Your task to perform on an android device: open app "Microsoft Excel" (install if not already installed), go to login, and select forgot password Image 0: 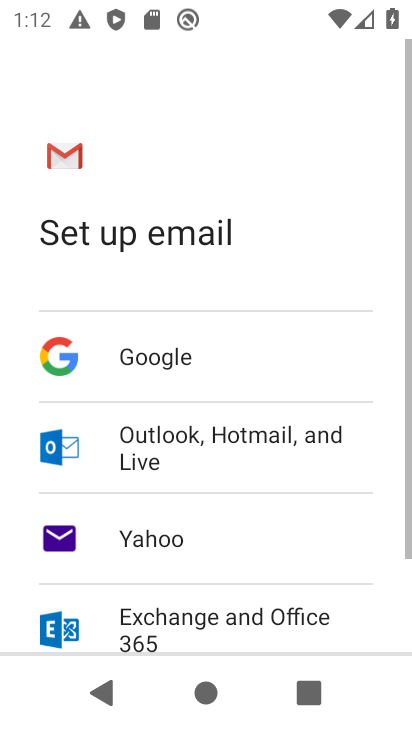
Step 0: press home button
Your task to perform on an android device: open app "Microsoft Excel" (install if not already installed), go to login, and select forgot password Image 1: 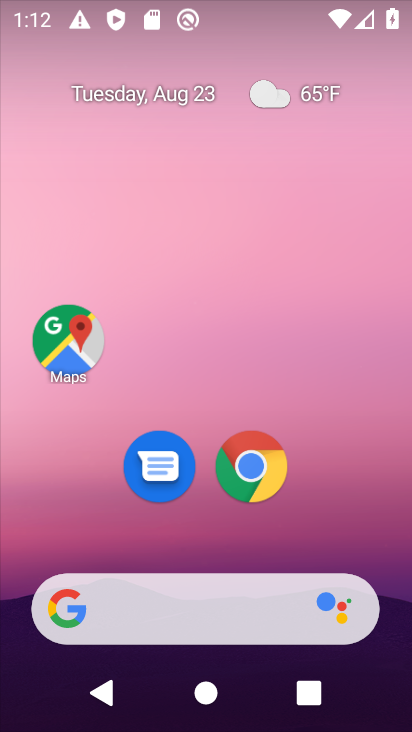
Step 1: drag from (208, 596) to (228, 161)
Your task to perform on an android device: open app "Microsoft Excel" (install if not already installed), go to login, and select forgot password Image 2: 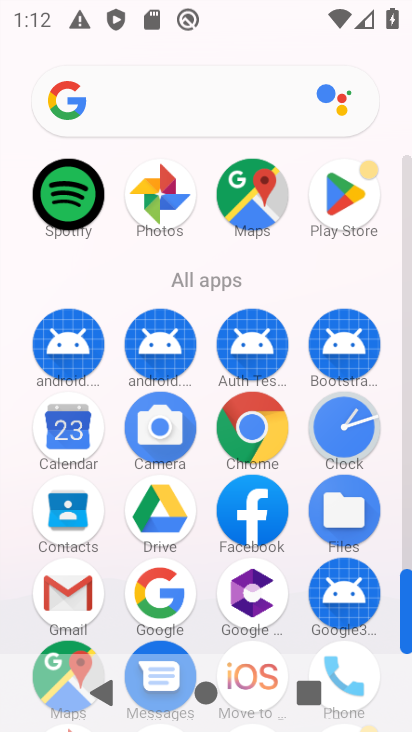
Step 2: click (338, 180)
Your task to perform on an android device: open app "Microsoft Excel" (install if not already installed), go to login, and select forgot password Image 3: 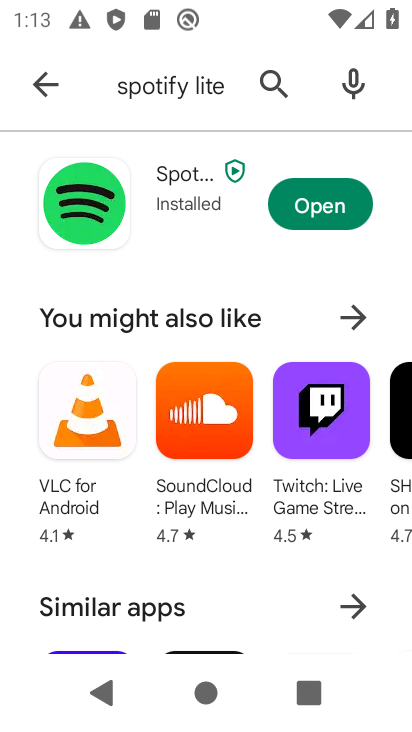
Step 3: click (60, 89)
Your task to perform on an android device: open app "Microsoft Excel" (install if not already installed), go to login, and select forgot password Image 4: 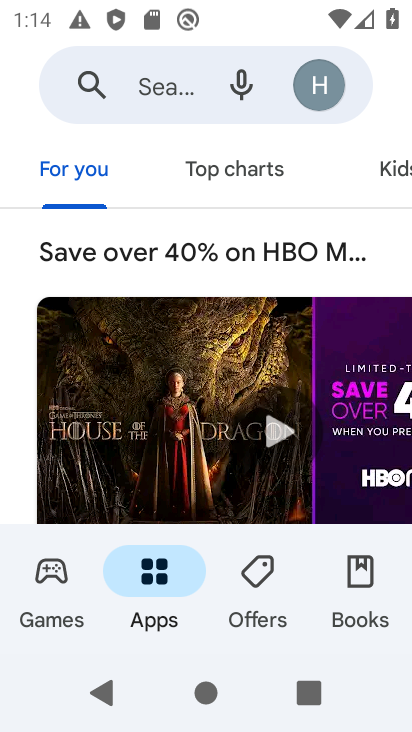
Step 4: click (150, 81)
Your task to perform on an android device: open app "Microsoft Excel" (install if not already installed), go to login, and select forgot password Image 5: 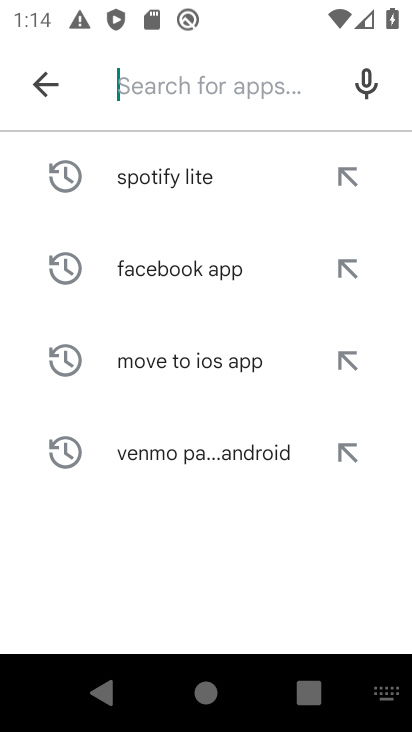
Step 5: type "Microsoft Excel "
Your task to perform on an android device: open app "Microsoft Excel" (install if not already installed), go to login, and select forgot password Image 6: 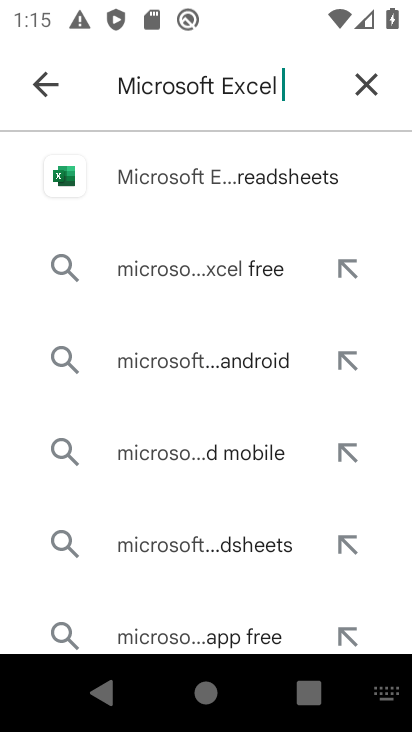
Step 6: click (154, 187)
Your task to perform on an android device: open app "Microsoft Excel" (install if not already installed), go to login, and select forgot password Image 7: 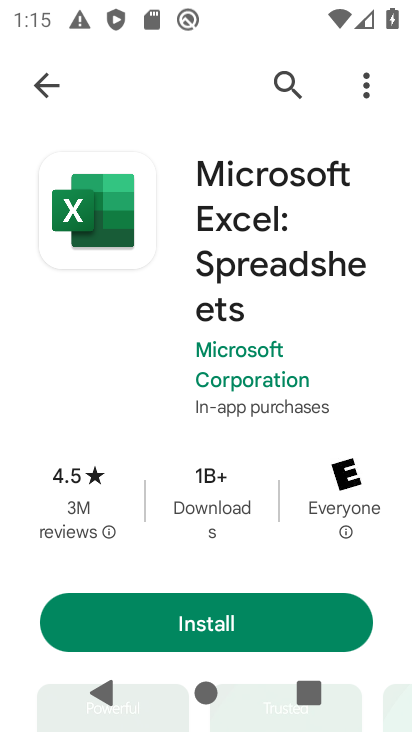
Step 7: click (245, 616)
Your task to perform on an android device: open app "Microsoft Excel" (install if not already installed), go to login, and select forgot password Image 8: 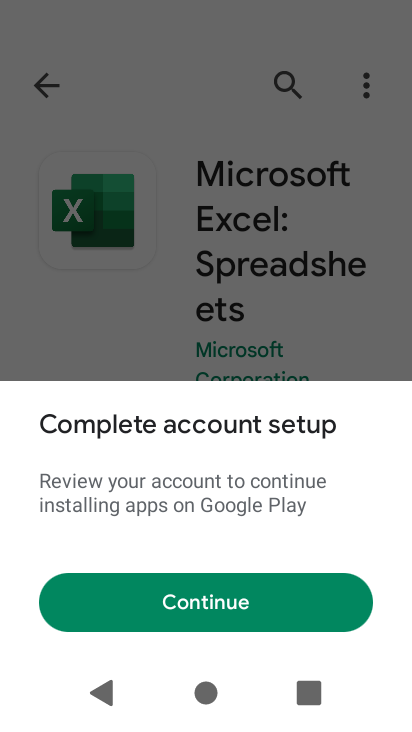
Step 8: click (227, 605)
Your task to perform on an android device: open app "Microsoft Excel" (install if not already installed), go to login, and select forgot password Image 9: 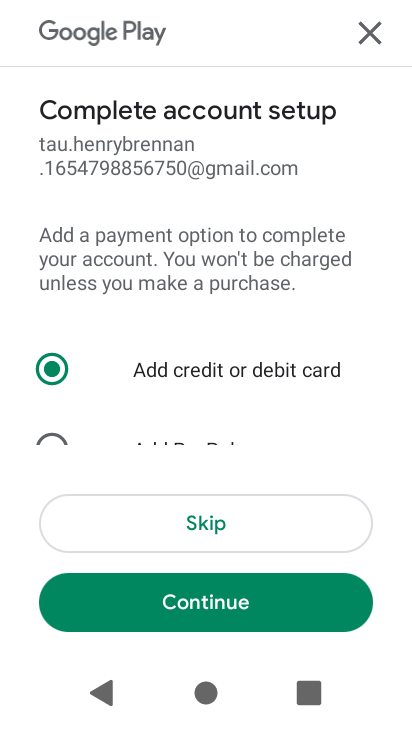
Step 9: task complete